Your task to perform on an android device: Open Google Chrome and click the shortcut for Amazon.com Image 0: 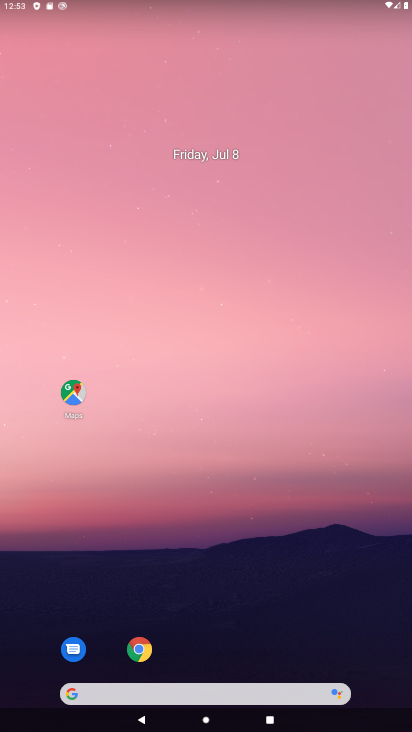
Step 0: drag from (284, 634) to (297, 208)
Your task to perform on an android device: Open Google Chrome and click the shortcut for Amazon.com Image 1: 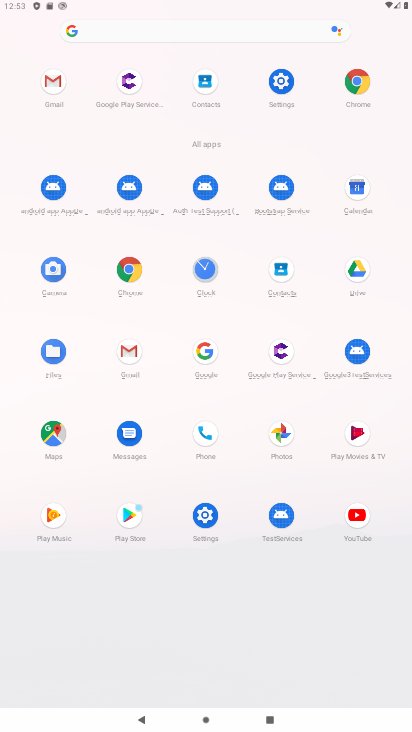
Step 1: click (357, 82)
Your task to perform on an android device: Open Google Chrome and click the shortcut for Amazon.com Image 2: 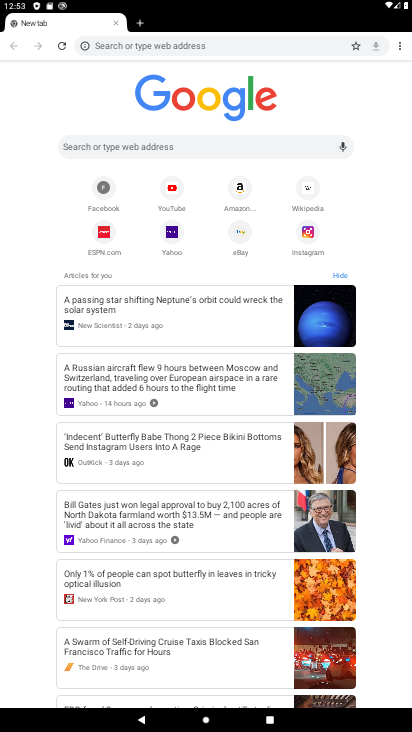
Step 2: click (245, 187)
Your task to perform on an android device: Open Google Chrome and click the shortcut for Amazon.com Image 3: 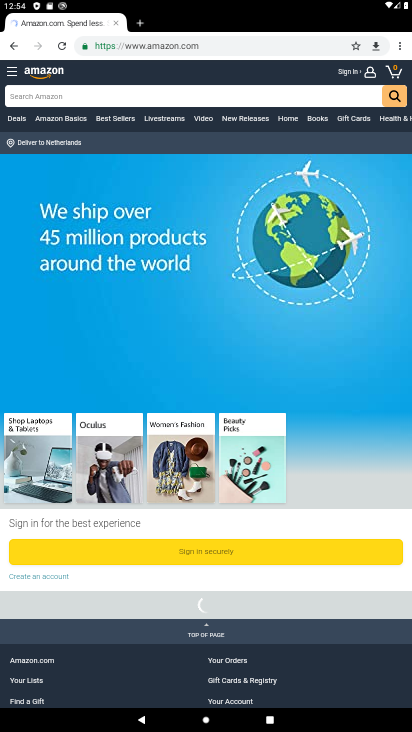
Step 3: task complete